Your task to perform on an android device: turn on javascript in the chrome app Image 0: 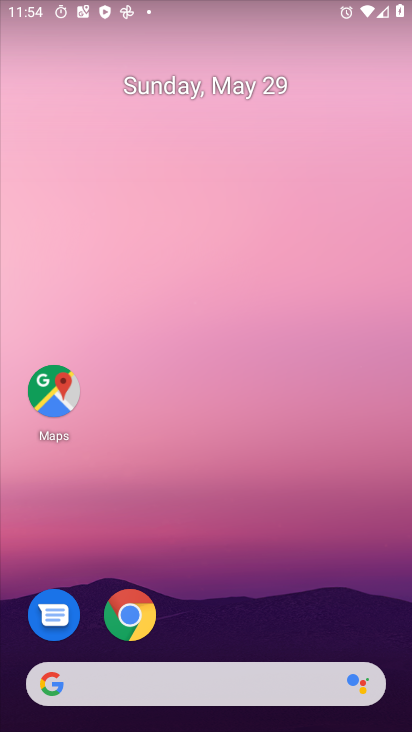
Step 0: drag from (230, 589) to (254, 147)
Your task to perform on an android device: turn on javascript in the chrome app Image 1: 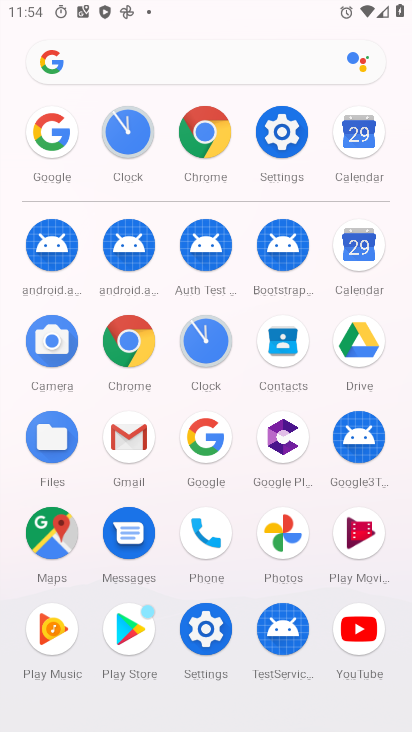
Step 1: click (208, 131)
Your task to perform on an android device: turn on javascript in the chrome app Image 2: 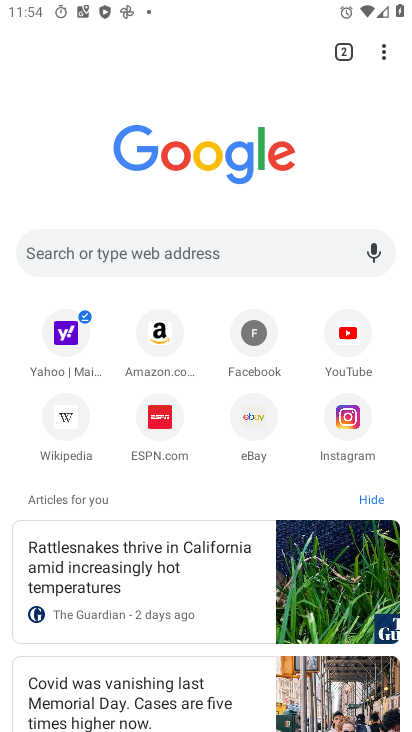
Step 2: click (374, 53)
Your task to perform on an android device: turn on javascript in the chrome app Image 3: 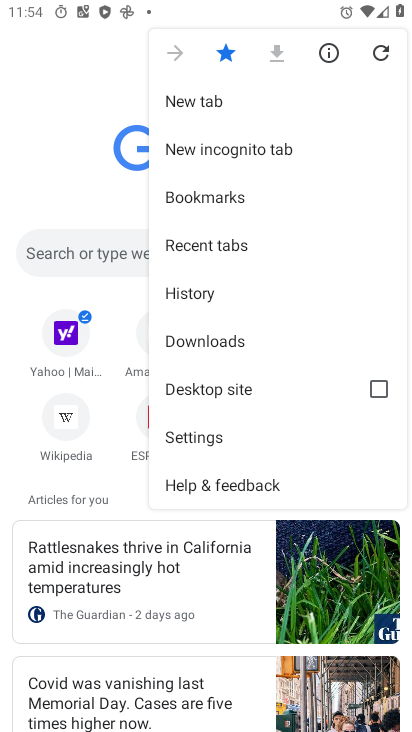
Step 3: click (207, 432)
Your task to perform on an android device: turn on javascript in the chrome app Image 4: 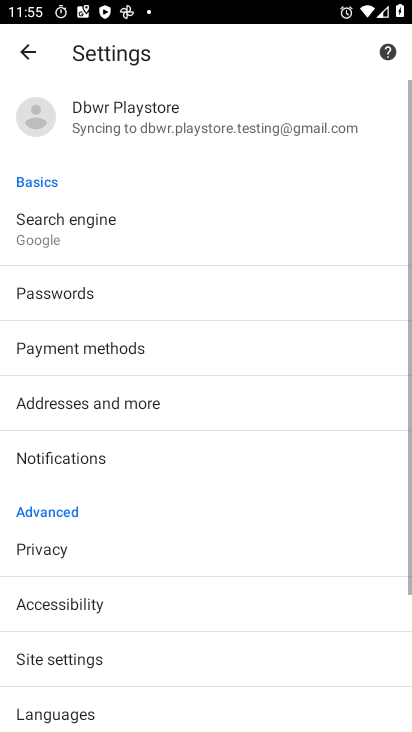
Step 4: drag from (135, 599) to (167, 202)
Your task to perform on an android device: turn on javascript in the chrome app Image 5: 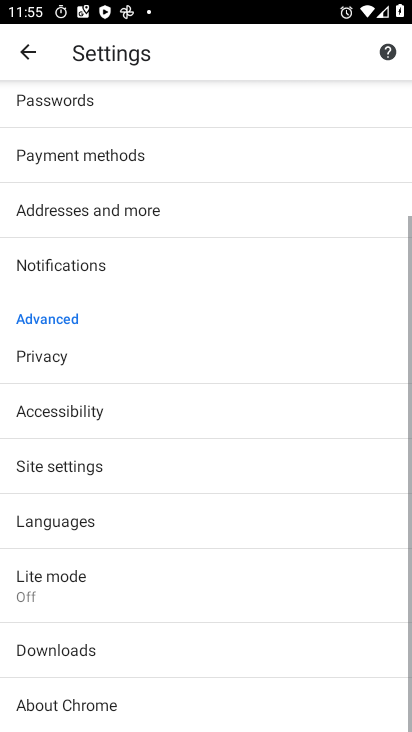
Step 5: drag from (74, 665) to (107, 371)
Your task to perform on an android device: turn on javascript in the chrome app Image 6: 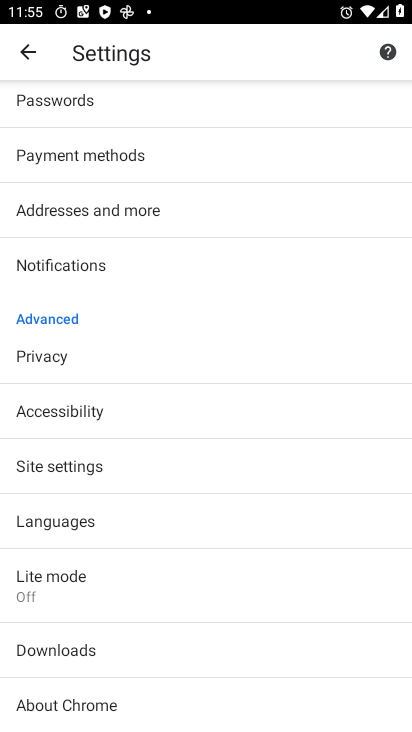
Step 6: click (105, 468)
Your task to perform on an android device: turn on javascript in the chrome app Image 7: 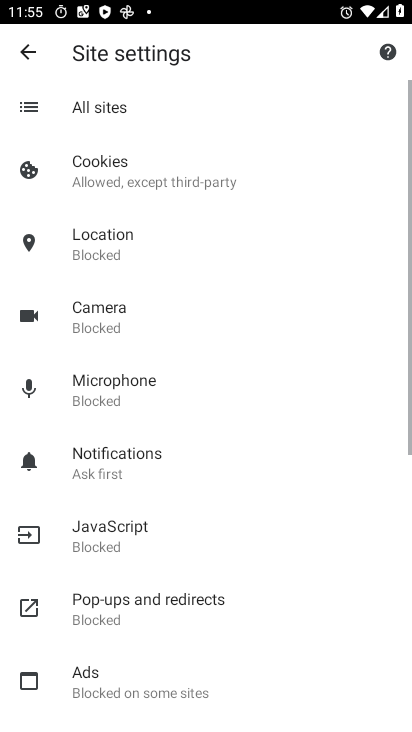
Step 7: click (117, 526)
Your task to perform on an android device: turn on javascript in the chrome app Image 8: 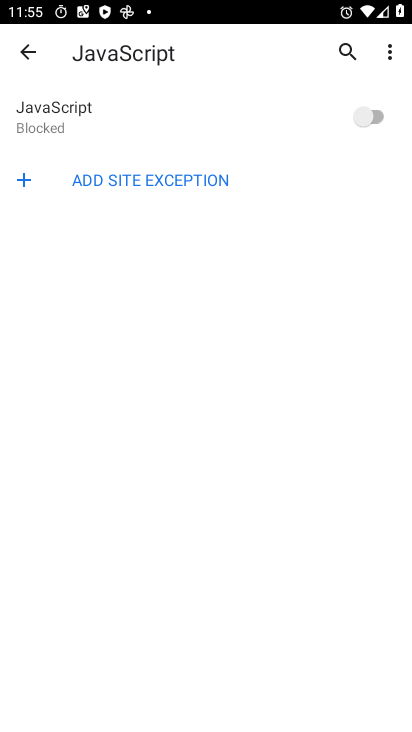
Step 8: click (383, 105)
Your task to perform on an android device: turn on javascript in the chrome app Image 9: 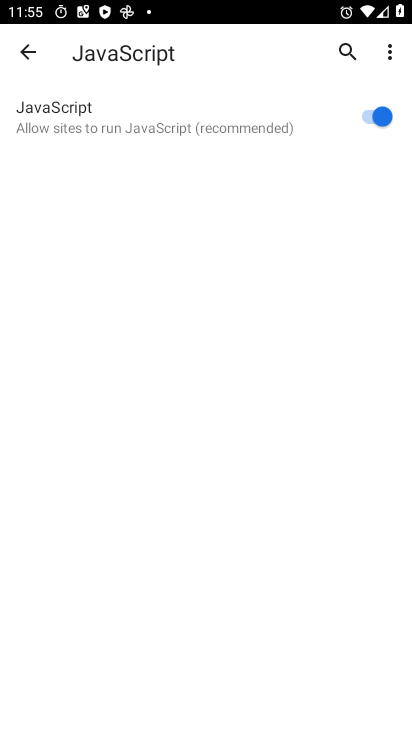
Step 9: task complete